Your task to perform on an android device: Go to ESPN.com Image 0: 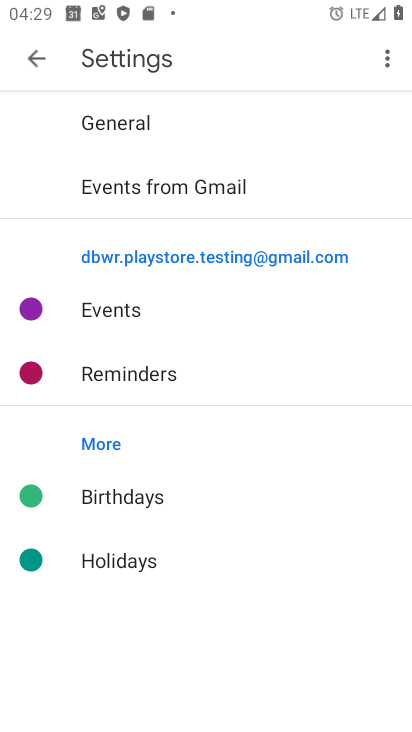
Step 0: press home button
Your task to perform on an android device: Go to ESPN.com Image 1: 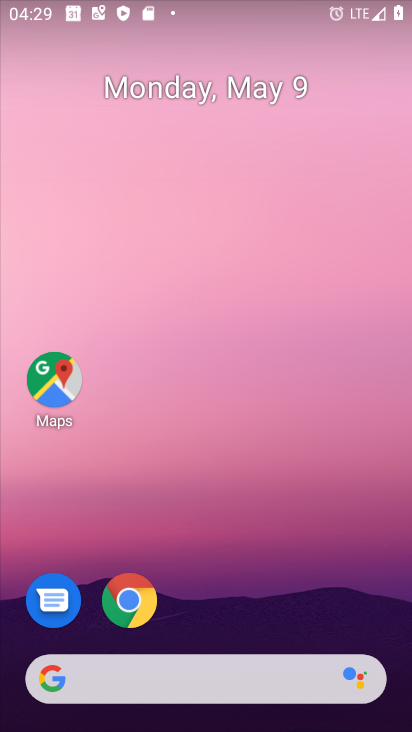
Step 1: drag from (263, 627) to (86, 4)
Your task to perform on an android device: Go to ESPN.com Image 2: 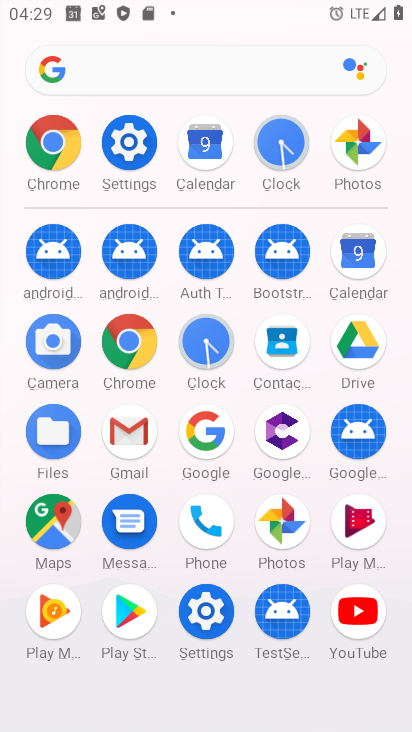
Step 2: click (124, 348)
Your task to perform on an android device: Go to ESPN.com Image 3: 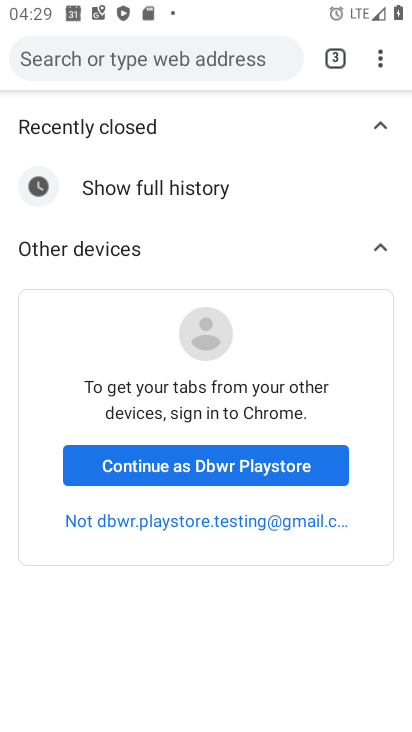
Step 3: click (220, 60)
Your task to perform on an android device: Go to ESPN.com Image 4: 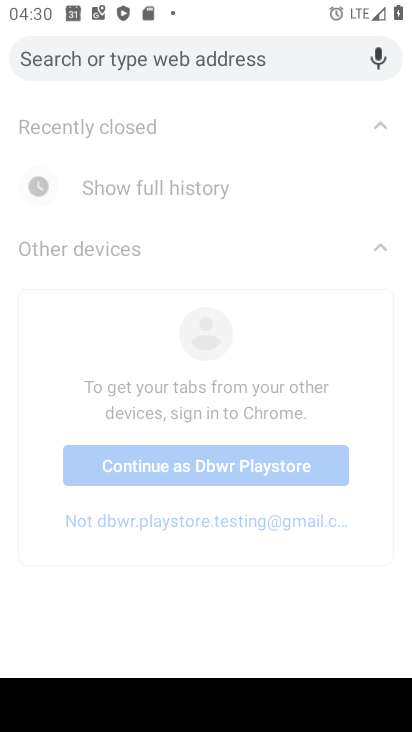
Step 4: type "espn.com"
Your task to perform on an android device: Go to ESPN.com Image 5: 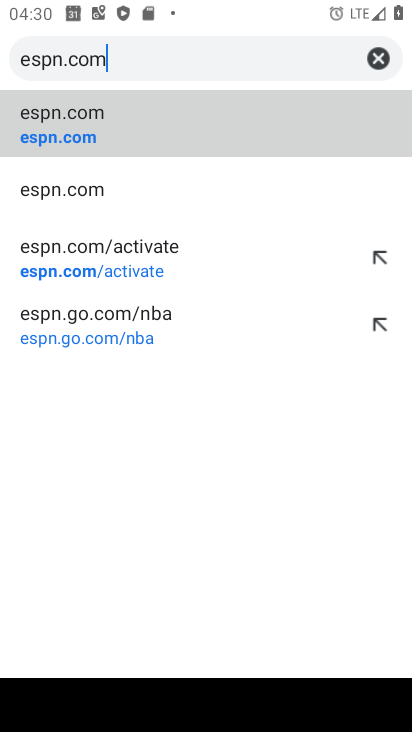
Step 5: click (95, 112)
Your task to perform on an android device: Go to ESPN.com Image 6: 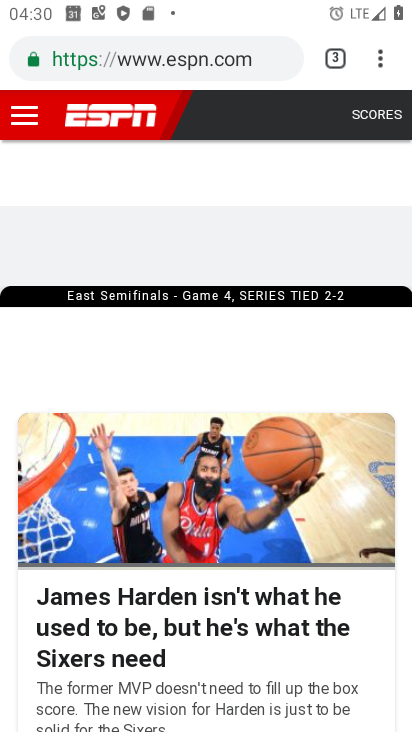
Step 6: task complete